Your task to perform on an android device: delete a single message in the gmail app Image 0: 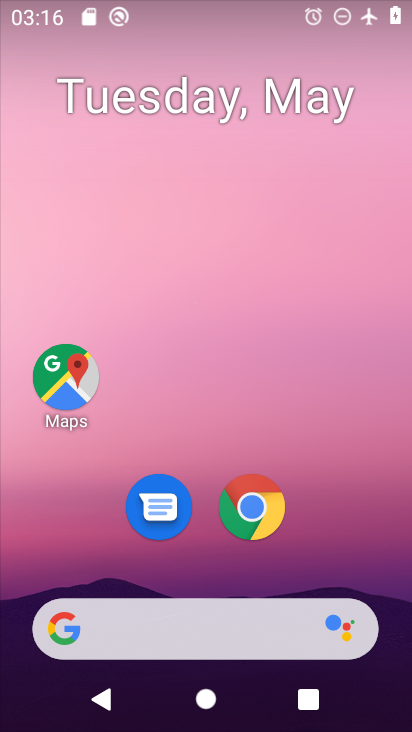
Step 0: drag from (215, 568) to (254, 221)
Your task to perform on an android device: delete a single message in the gmail app Image 1: 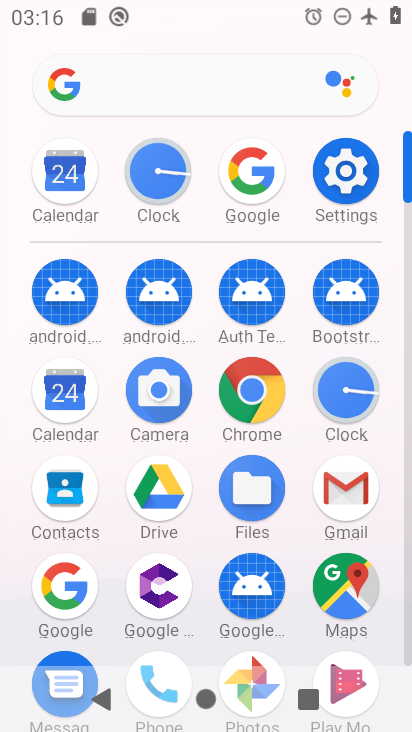
Step 1: click (325, 494)
Your task to perform on an android device: delete a single message in the gmail app Image 2: 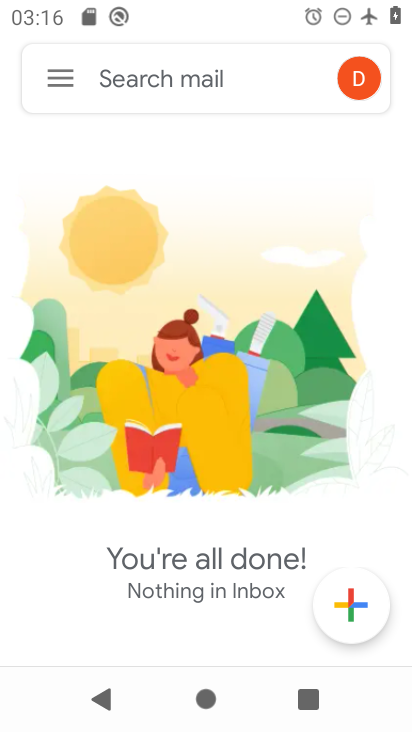
Step 2: click (71, 78)
Your task to perform on an android device: delete a single message in the gmail app Image 3: 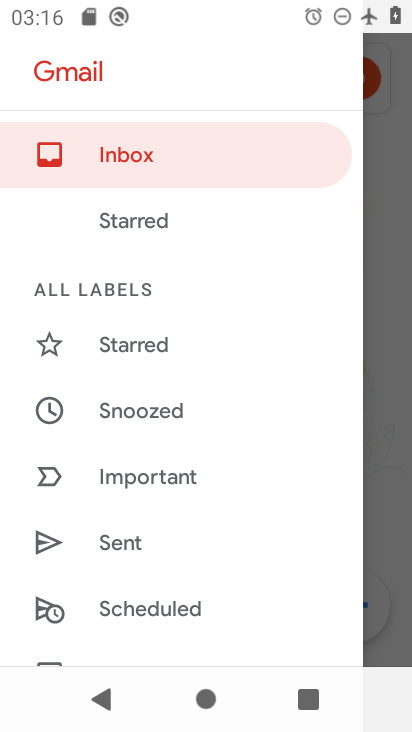
Step 3: drag from (185, 522) to (208, 351)
Your task to perform on an android device: delete a single message in the gmail app Image 4: 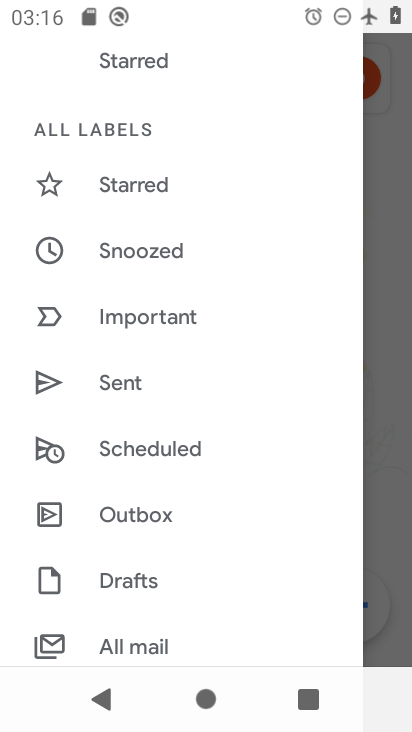
Step 4: drag from (205, 511) to (198, 308)
Your task to perform on an android device: delete a single message in the gmail app Image 5: 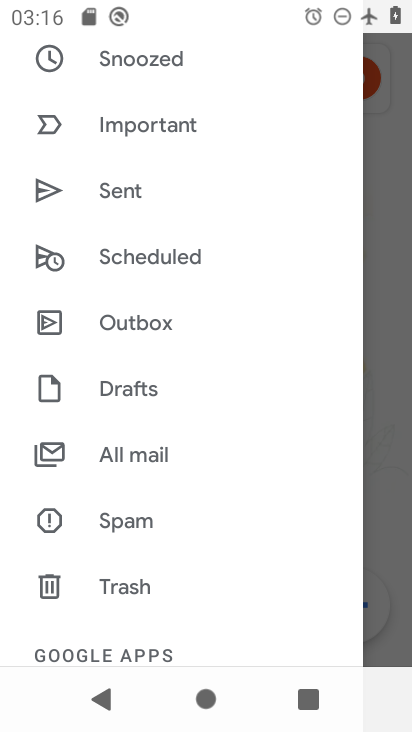
Step 5: click (158, 441)
Your task to perform on an android device: delete a single message in the gmail app Image 6: 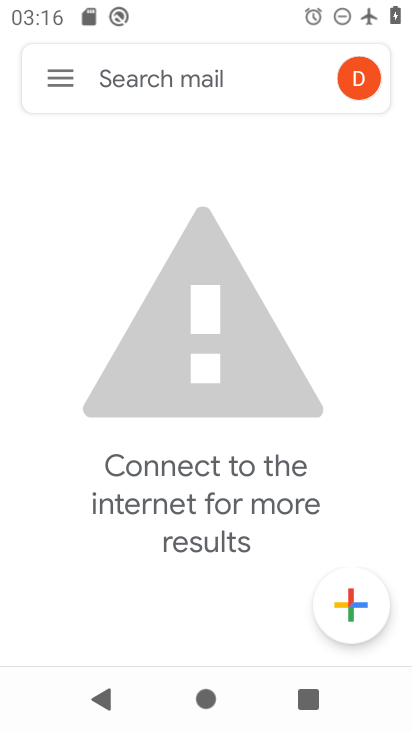
Step 6: task complete